Your task to perform on an android device: Turn on the flashlight Image 0: 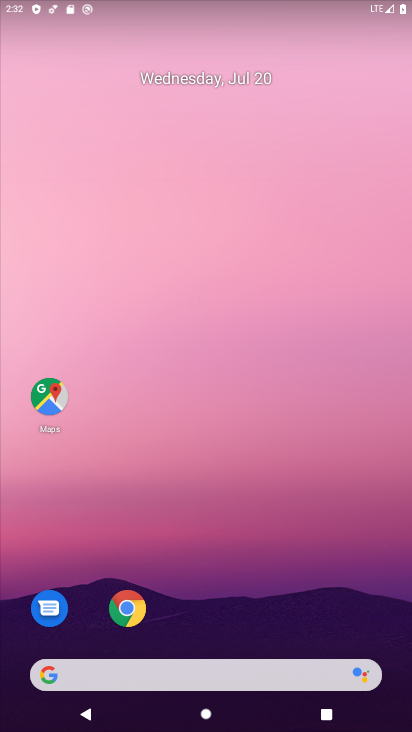
Step 0: drag from (219, 632) to (171, 0)
Your task to perform on an android device: Turn on the flashlight Image 1: 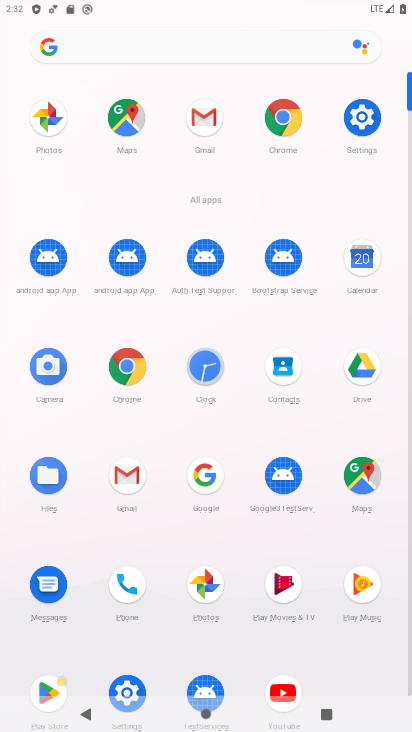
Step 1: click (364, 124)
Your task to perform on an android device: Turn on the flashlight Image 2: 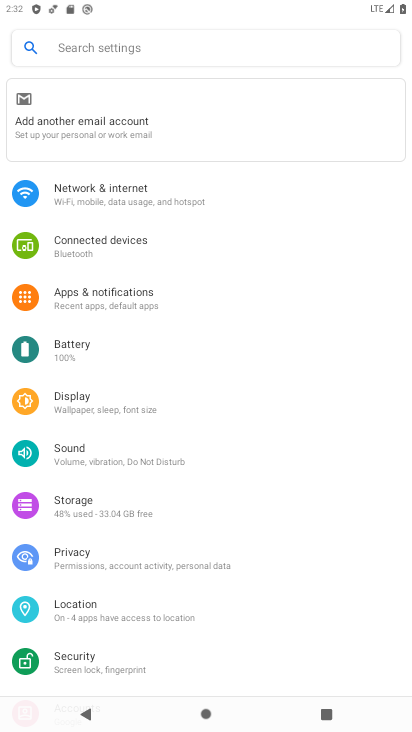
Step 2: task complete